Your task to perform on an android device: turn notification dots on Image 0: 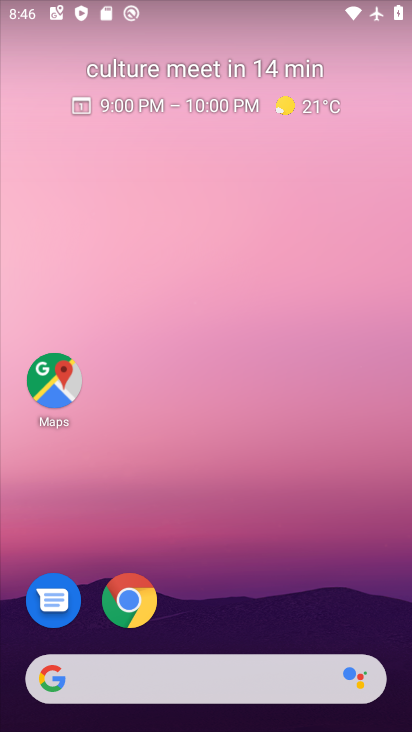
Step 0: drag from (366, 620) to (297, 189)
Your task to perform on an android device: turn notification dots on Image 1: 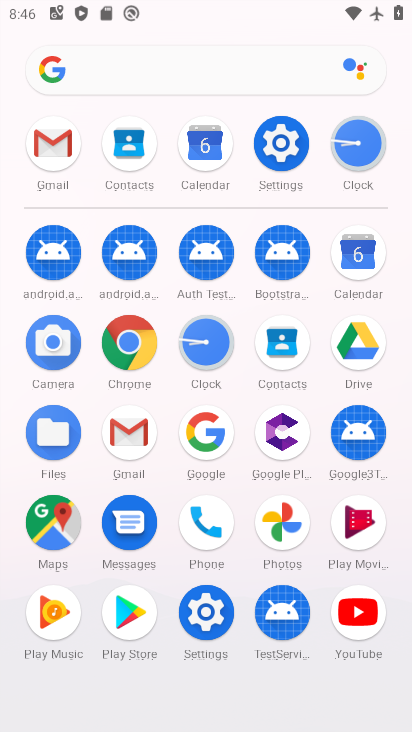
Step 1: click (204, 613)
Your task to perform on an android device: turn notification dots on Image 2: 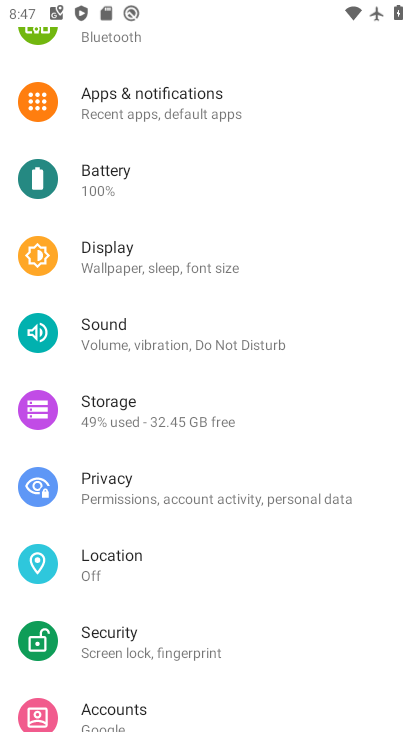
Step 2: click (157, 96)
Your task to perform on an android device: turn notification dots on Image 3: 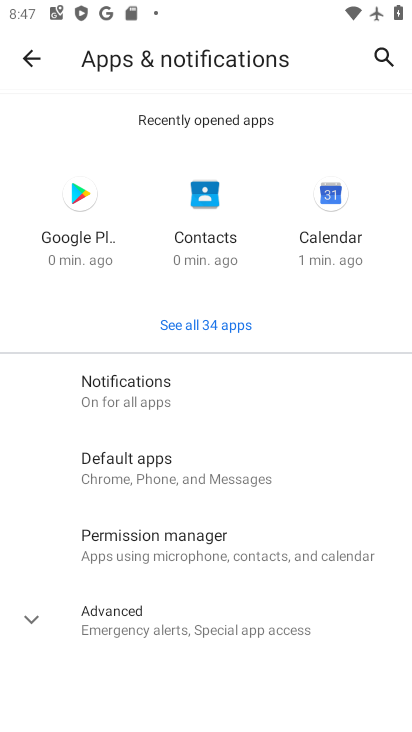
Step 3: click (116, 386)
Your task to perform on an android device: turn notification dots on Image 4: 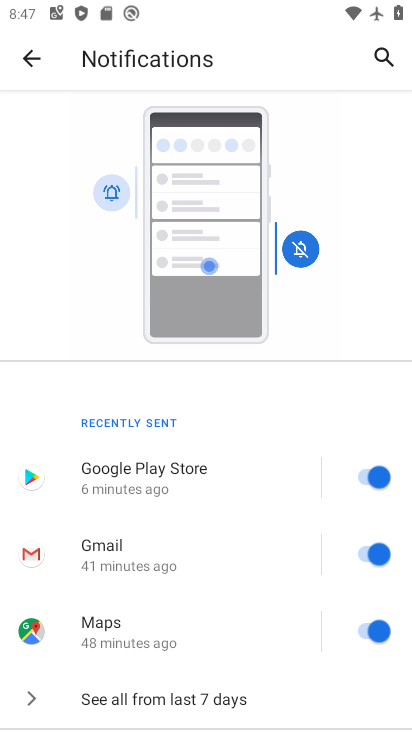
Step 4: drag from (294, 656) to (250, 187)
Your task to perform on an android device: turn notification dots on Image 5: 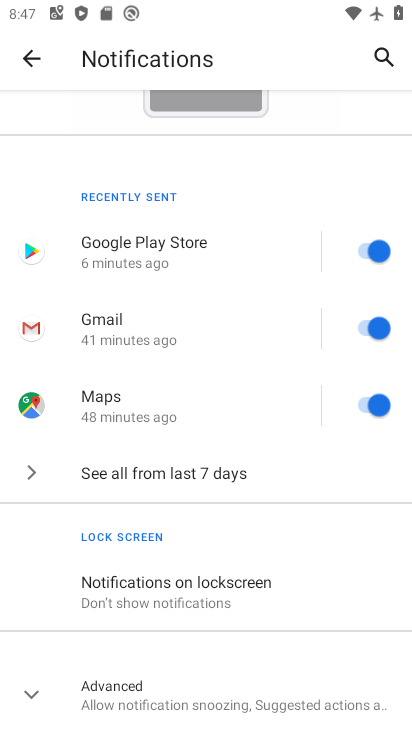
Step 5: click (89, 696)
Your task to perform on an android device: turn notification dots on Image 6: 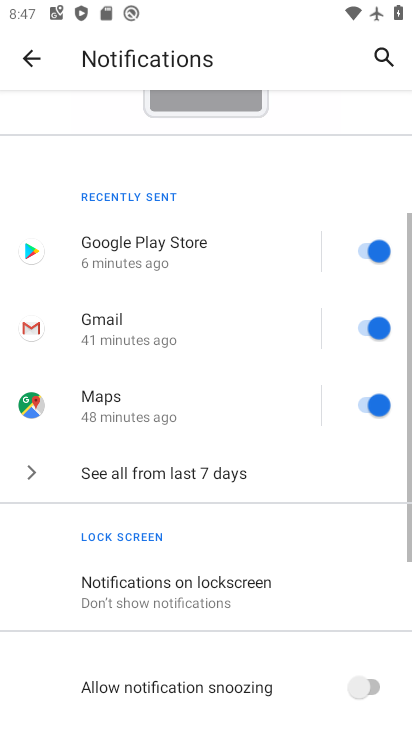
Step 6: drag from (339, 663) to (308, 266)
Your task to perform on an android device: turn notification dots on Image 7: 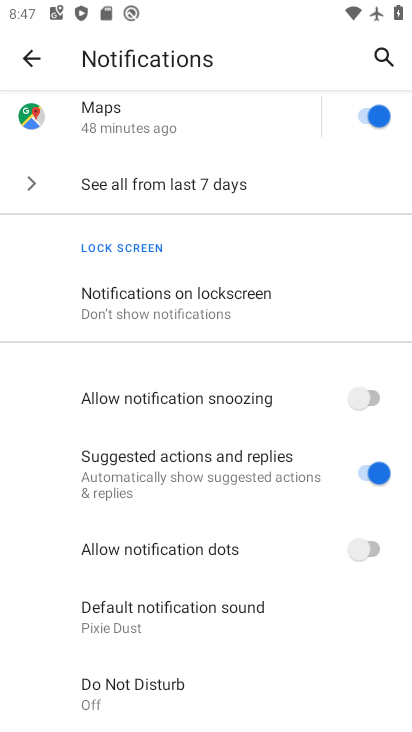
Step 7: click (374, 553)
Your task to perform on an android device: turn notification dots on Image 8: 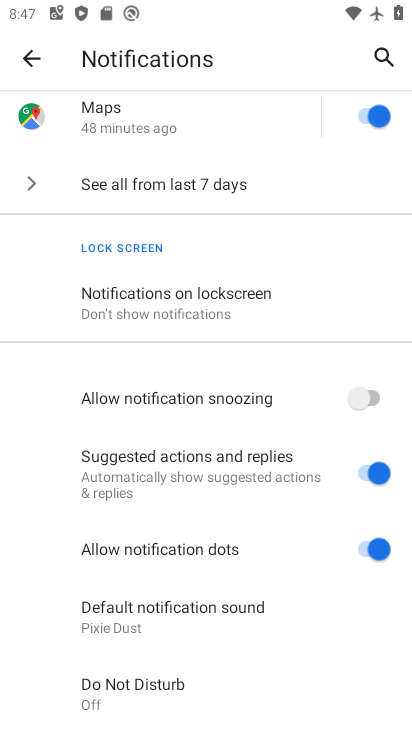
Step 8: task complete